Your task to perform on an android device: Open the Play Movies app and select the watchlist tab. Image 0: 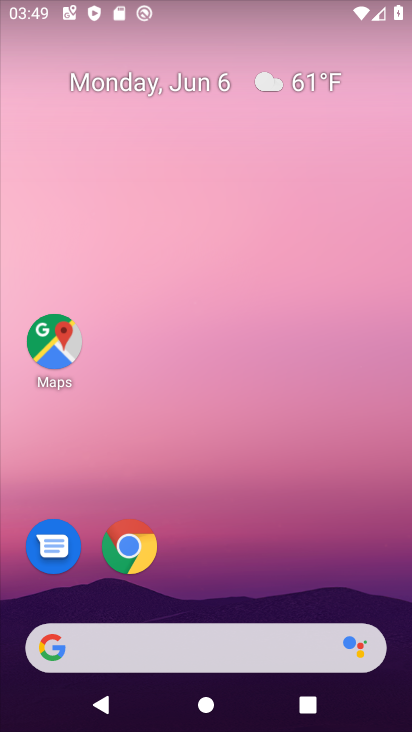
Step 0: press home button
Your task to perform on an android device: Open the Play Movies app and select the watchlist tab. Image 1: 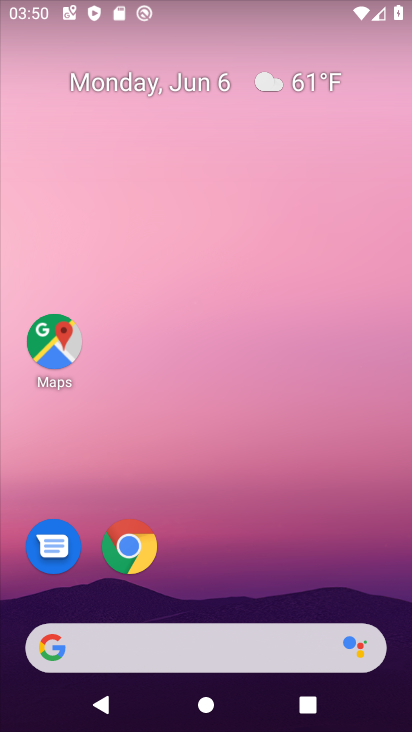
Step 1: drag from (225, 607) to (232, 169)
Your task to perform on an android device: Open the Play Movies app and select the watchlist tab. Image 2: 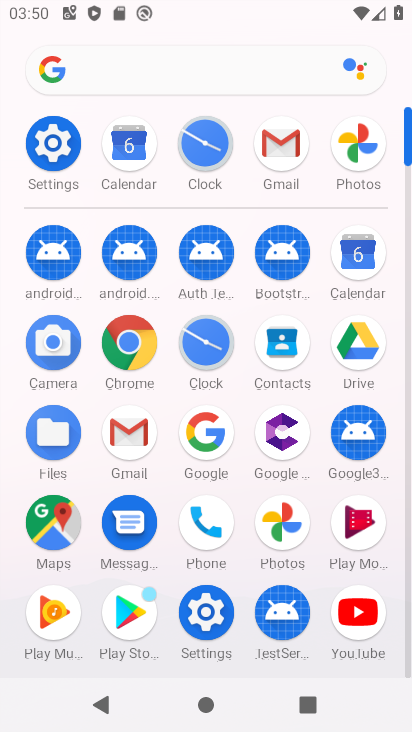
Step 2: click (360, 520)
Your task to perform on an android device: Open the Play Movies app and select the watchlist tab. Image 3: 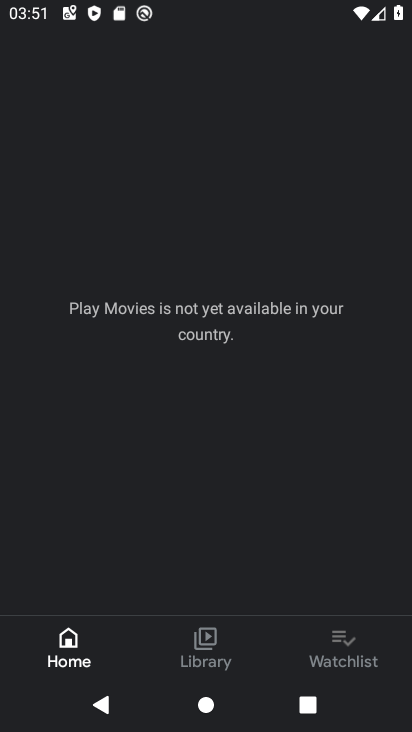
Step 3: click (341, 657)
Your task to perform on an android device: Open the Play Movies app and select the watchlist tab. Image 4: 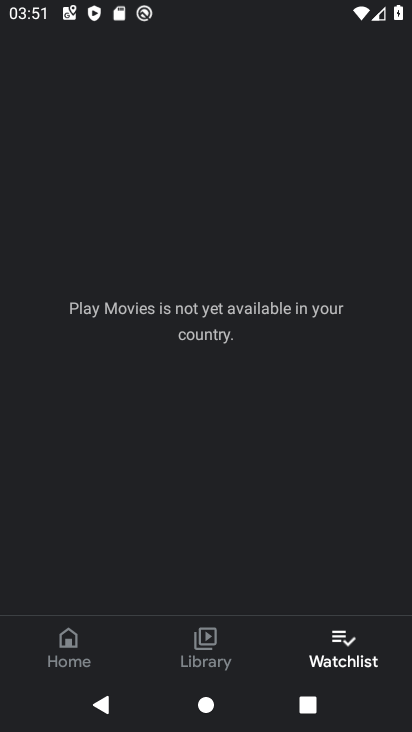
Step 4: task complete